Your task to perform on an android device: set an alarm Image 0: 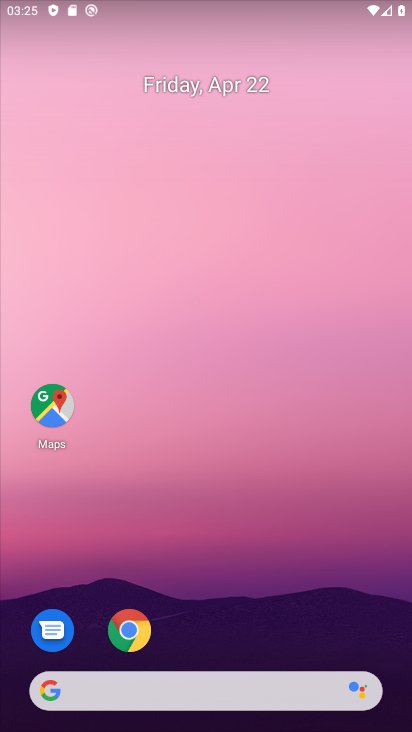
Step 0: drag from (198, 574) to (281, 116)
Your task to perform on an android device: set an alarm Image 1: 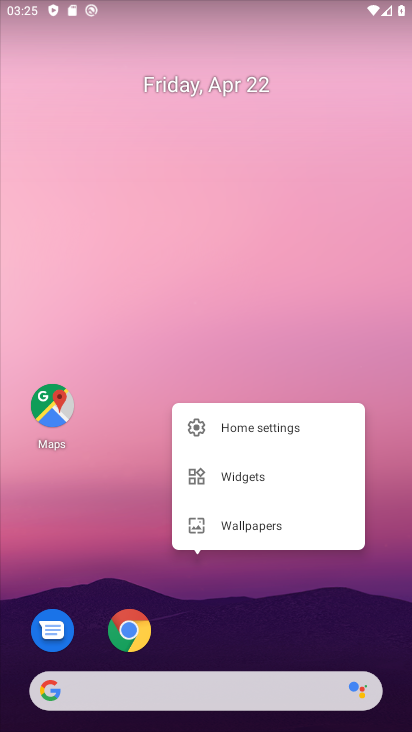
Step 1: click (204, 634)
Your task to perform on an android device: set an alarm Image 2: 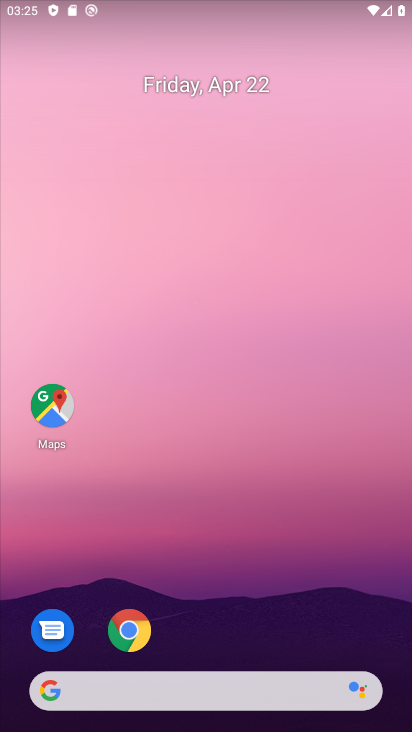
Step 2: drag from (219, 640) to (270, 191)
Your task to perform on an android device: set an alarm Image 3: 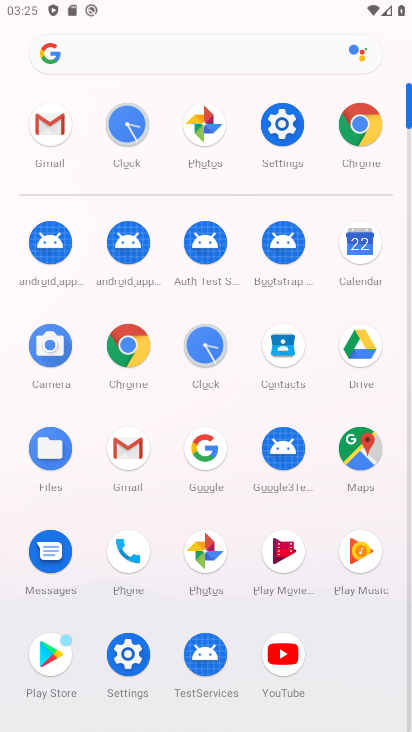
Step 3: click (197, 336)
Your task to perform on an android device: set an alarm Image 4: 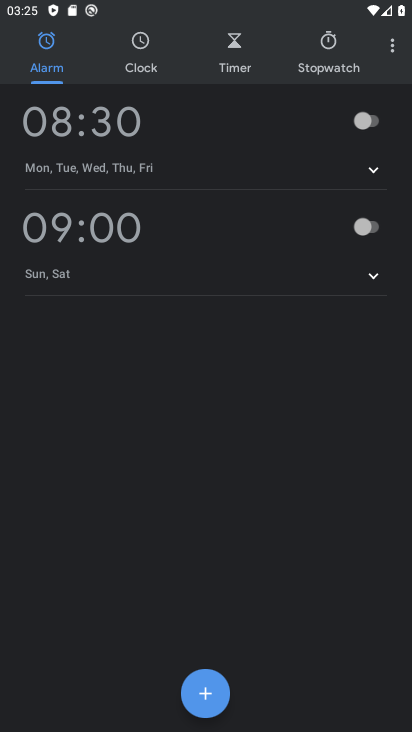
Step 4: click (121, 157)
Your task to perform on an android device: set an alarm Image 5: 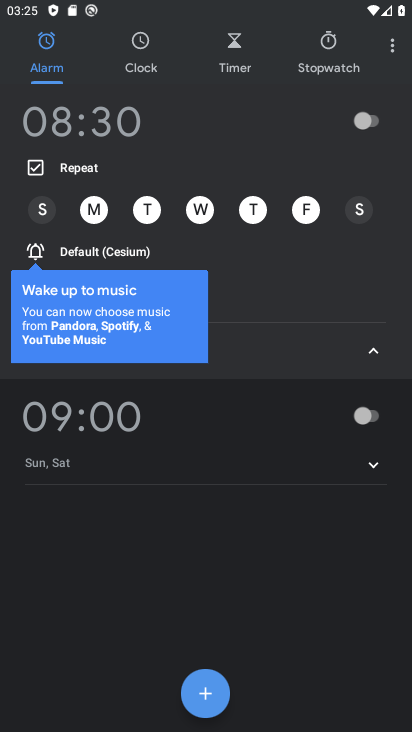
Step 5: click (372, 118)
Your task to perform on an android device: set an alarm Image 6: 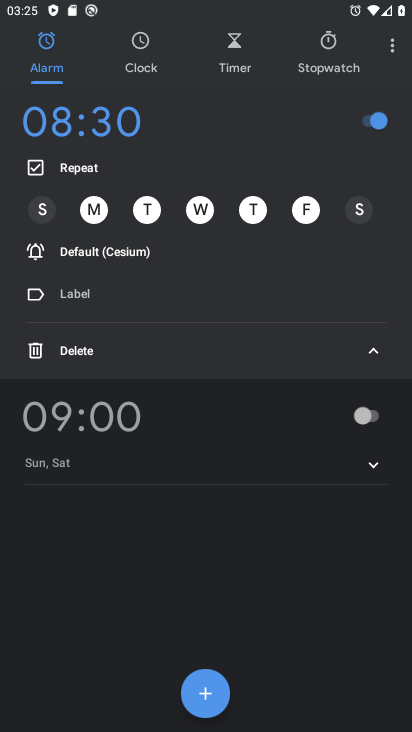
Step 6: task complete